Your task to perform on an android device: find which apps use the phone's location Image 0: 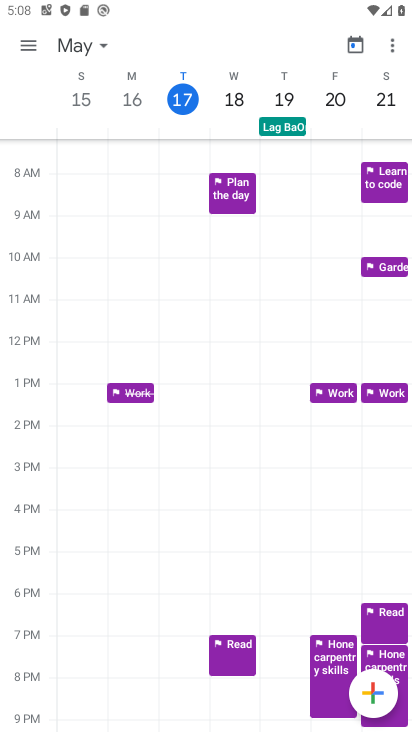
Step 0: press home button
Your task to perform on an android device: find which apps use the phone's location Image 1: 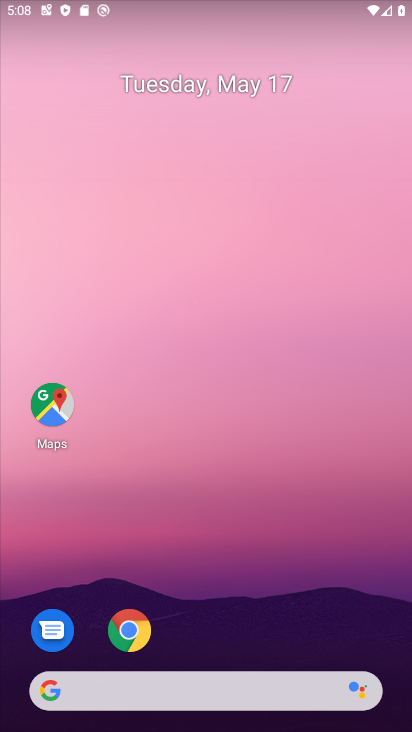
Step 1: drag from (347, 596) to (376, 122)
Your task to perform on an android device: find which apps use the phone's location Image 2: 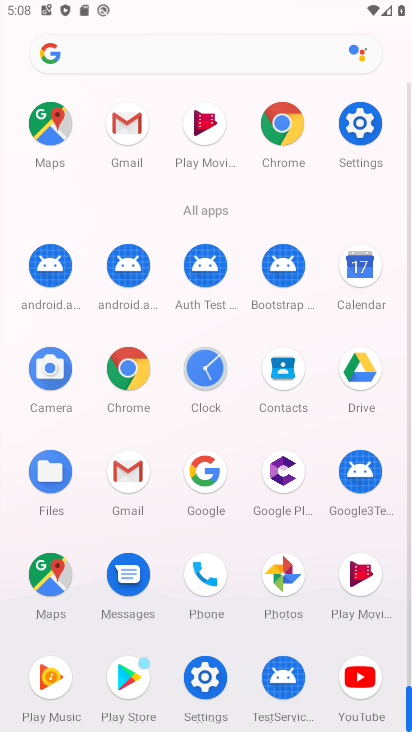
Step 2: click (370, 114)
Your task to perform on an android device: find which apps use the phone's location Image 3: 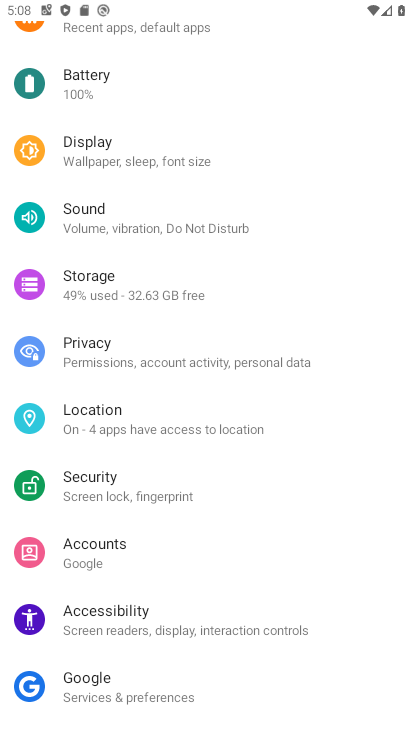
Step 3: click (151, 425)
Your task to perform on an android device: find which apps use the phone's location Image 4: 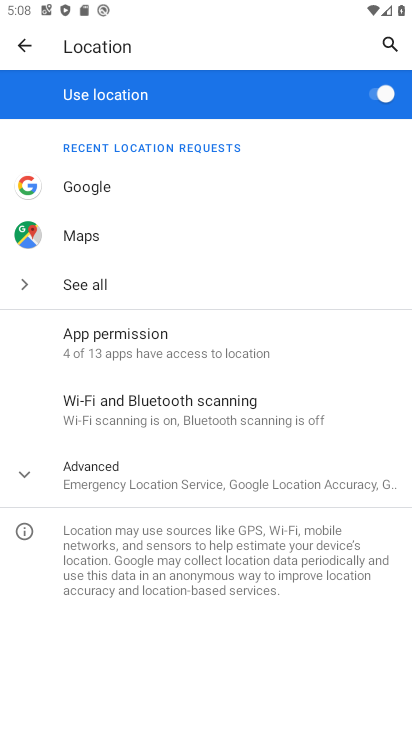
Step 4: click (179, 344)
Your task to perform on an android device: find which apps use the phone's location Image 5: 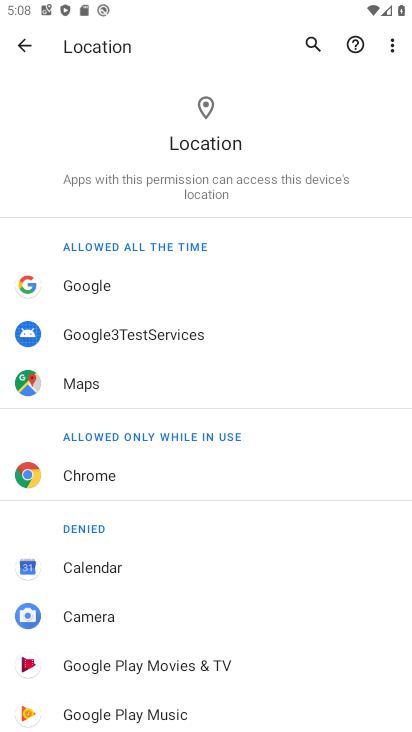
Step 5: task complete